Your task to perform on an android device: delete browsing data in the chrome app Image 0: 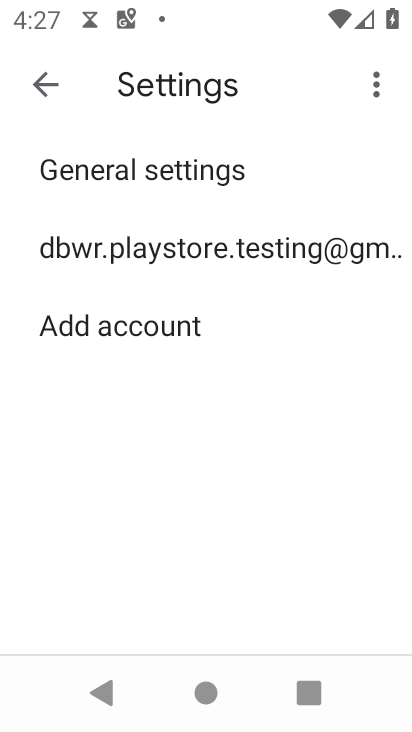
Step 0: press home button
Your task to perform on an android device: delete browsing data in the chrome app Image 1: 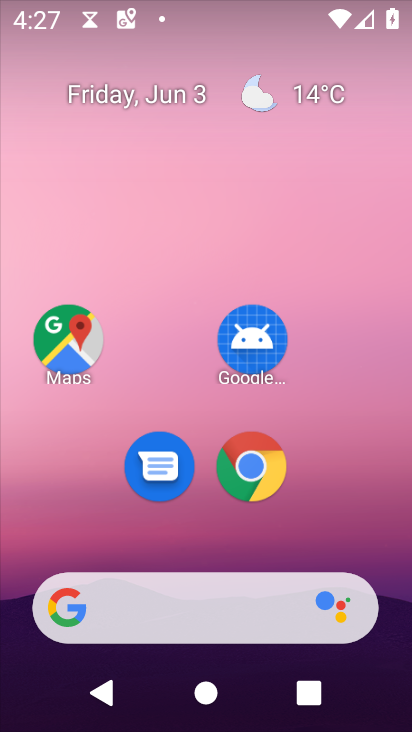
Step 1: click (257, 465)
Your task to perform on an android device: delete browsing data in the chrome app Image 2: 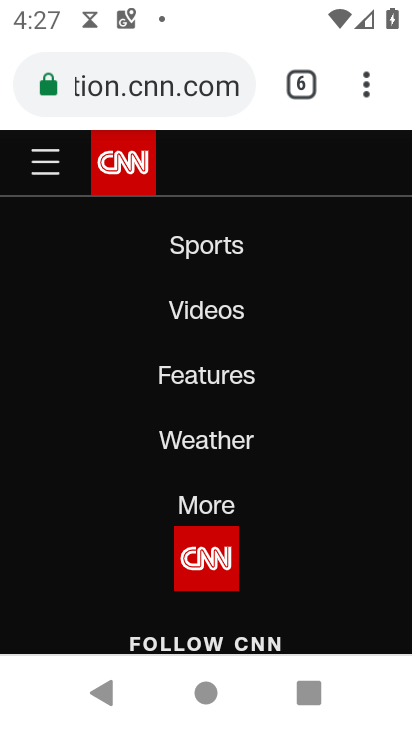
Step 2: click (368, 71)
Your task to perform on an android device: delete browsing data in the chrome app Image 3: 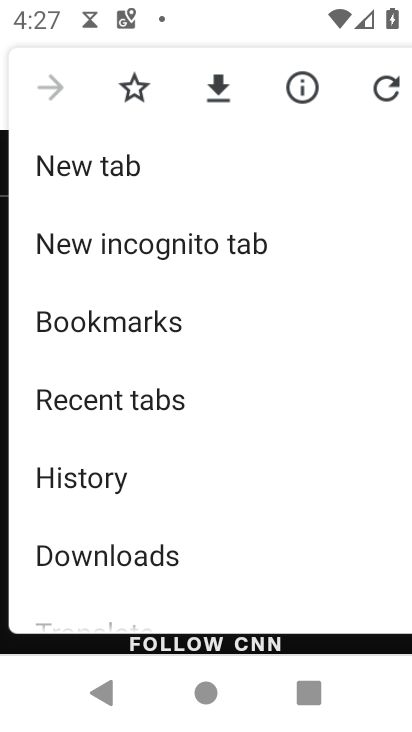
Step 3: drag from (296, 419) to (333, 278)
Your task to perform on an android device: delete browsing data in the chrome app Image 4: 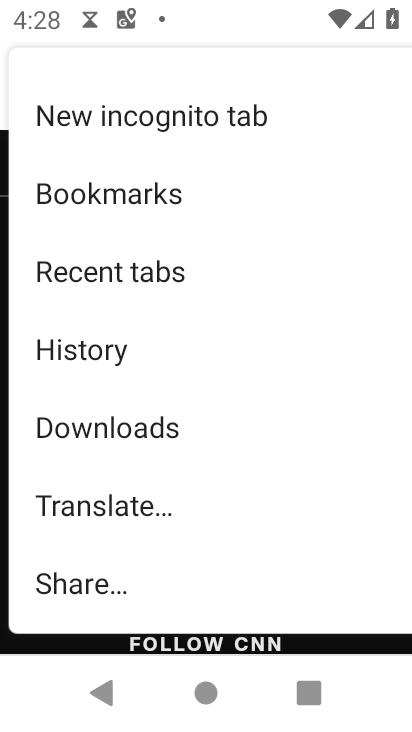
Step 4: drag from (258, 498) to (254, 319)
Your task to perform on an android device: delete browsing data in the chrome app Image 5: 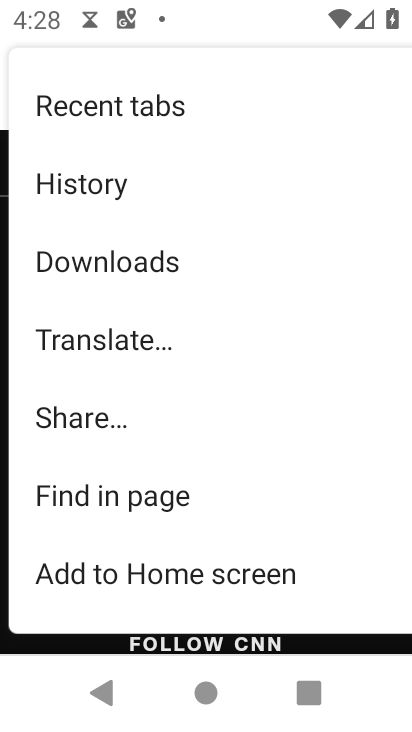
Step 5: drag from (316, 437) to (330, 252)
Your task to perform on an android device: delete browsing data in the chrome app Image 6: 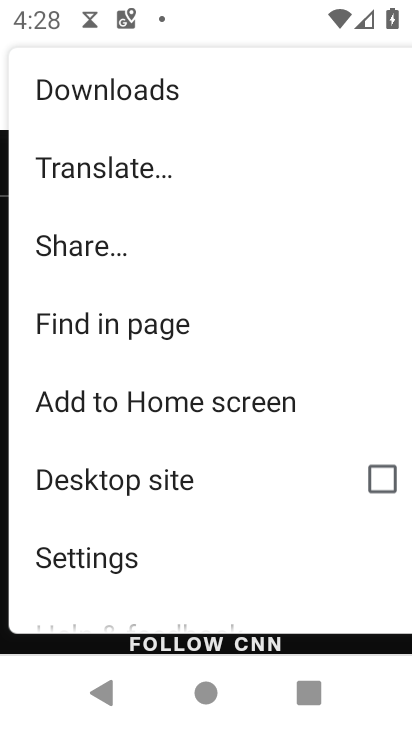
Step 6: click (157, 578)
Your task to perform on an android device: delete browsing data in the chrome app Image 7: 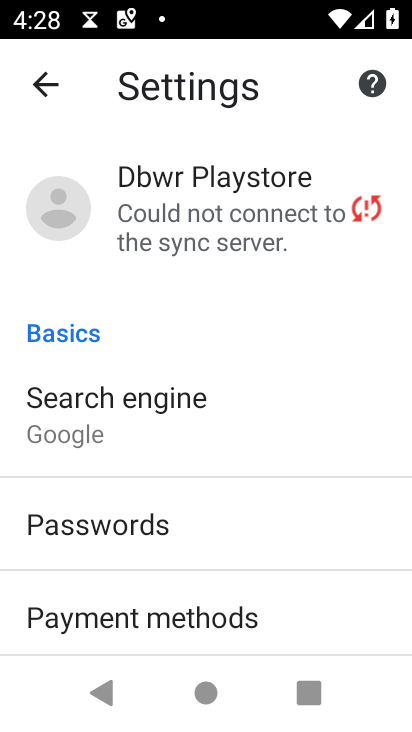
Step 7: click (306, 496)
Your task to perform on an android device: delete browsing data in the chrome app Image 8: 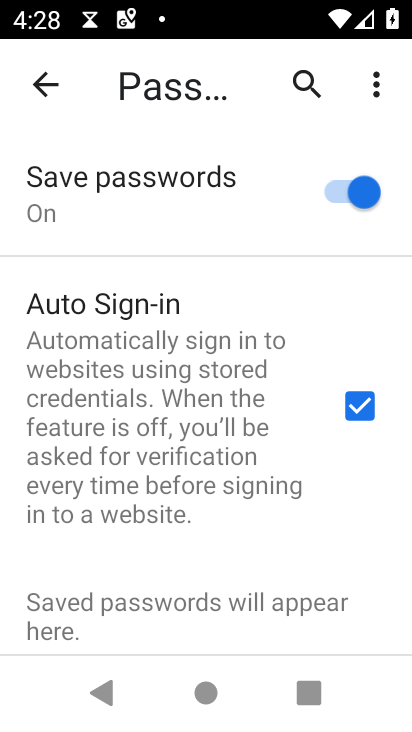
Step 8: press back button
Your task to perform on an android device: delete browsing data in the chrome app Image 9: 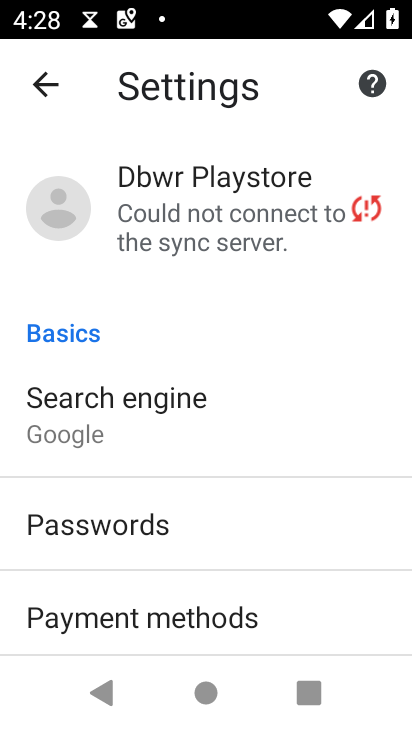
Step 9: drag from (337, 587) to (312, 352)
Your task to perform on an android device: delete browsing data in the chrome app Image 10: 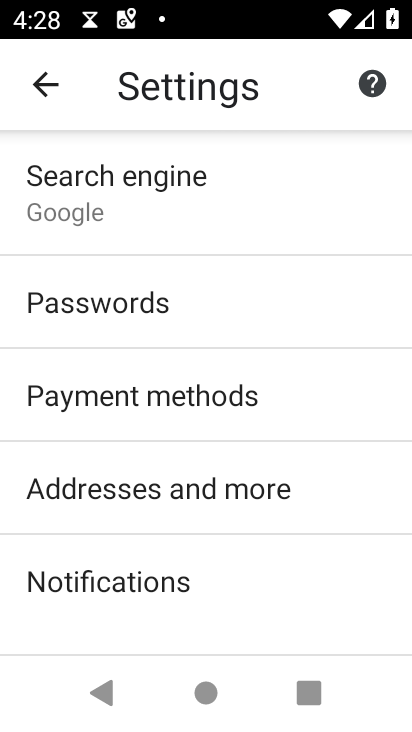
Step 10: drag from (227, 579) to (204, 334)
Your task to perform on an android device: delete browsing data in the chrome app Image 11: 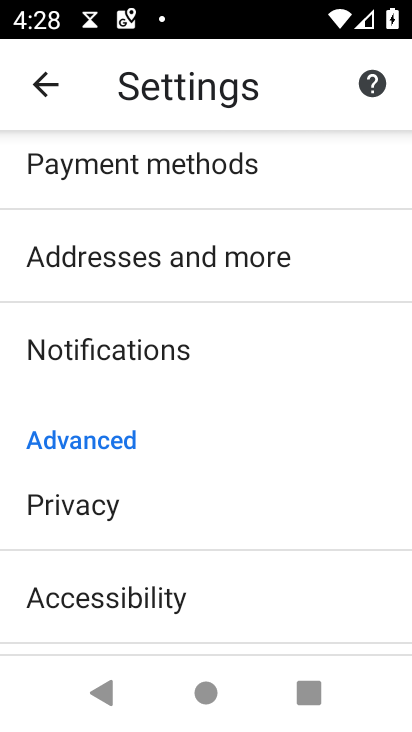
Step 11: click (218, 493)
Your task to perform on an android device: delete browsing data in the chrome app Image 12: 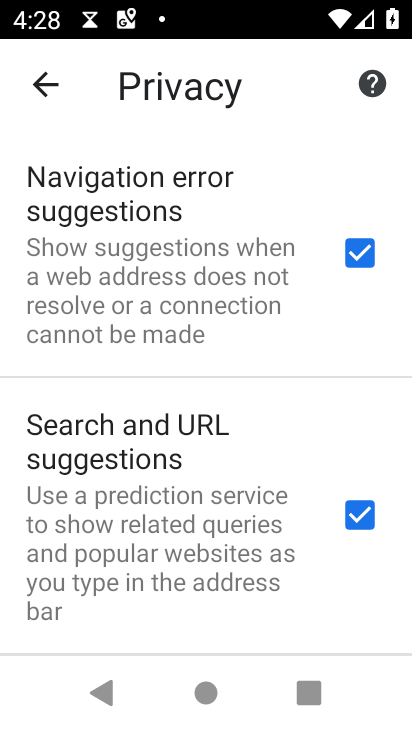
Step 12: drag from (316, 566) to (403, 108)
Your task to perform on an android device: delete browsing data in the chrome app Image 13: 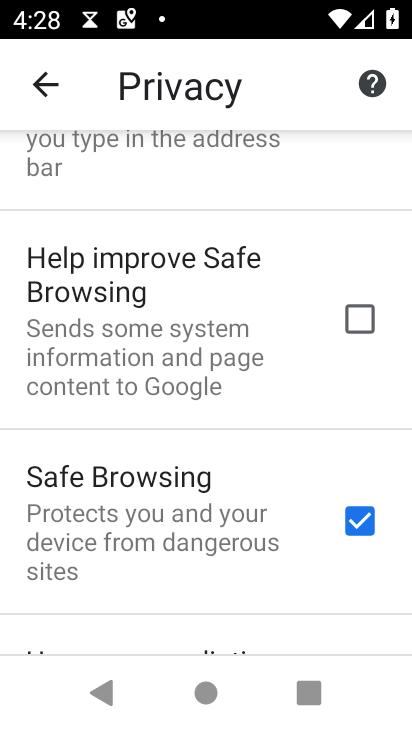
Step 13: drag from (127, 541) to (167, 48)
Your task to perform on an android device: delete browsing data in the chrome app Image 14: 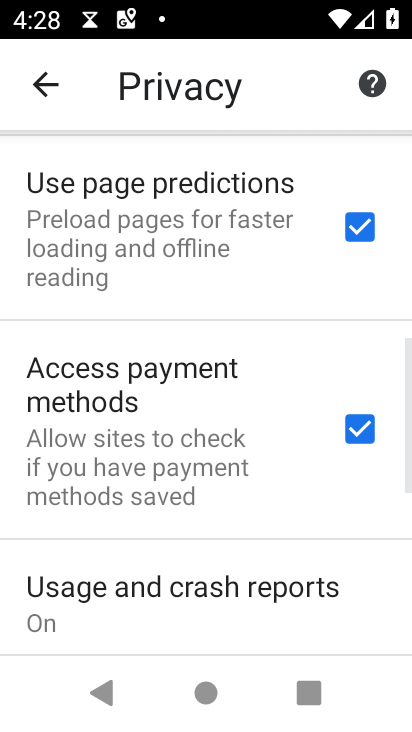
Step 14: drag from (10, 578) to (115, 156)
Your task to perform on an android device: delete browsing data in the chrome app Image 15: 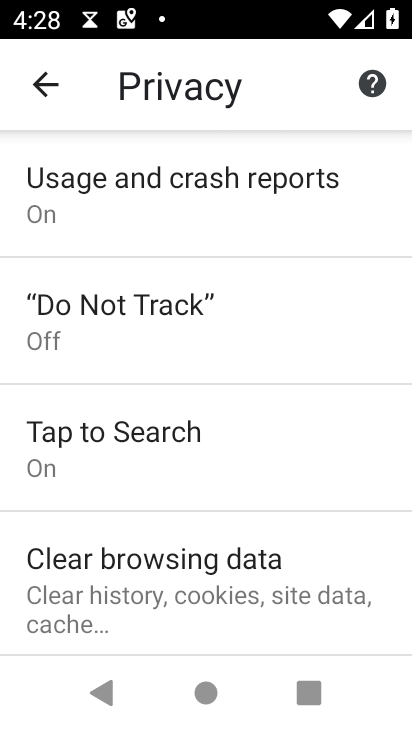
Step 15: drag from (158, 567) to (173, 288)
Your task to perform on an android device: delete browsing data in the chrome app Image 16: 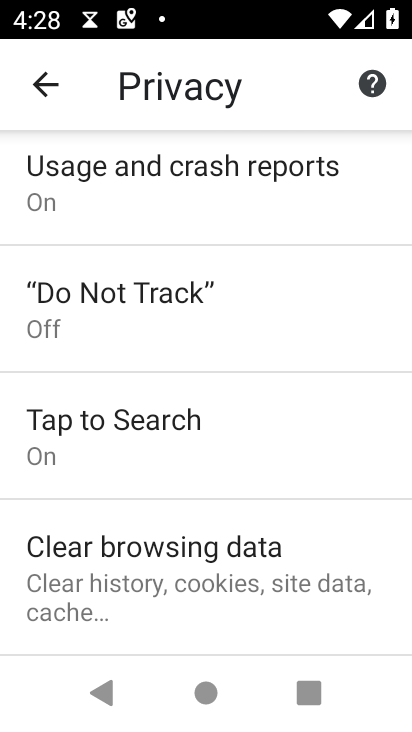
Step 16: click (168, 575)
Your task to perform on an android device: delete browsing data in the chrome app Image 17: 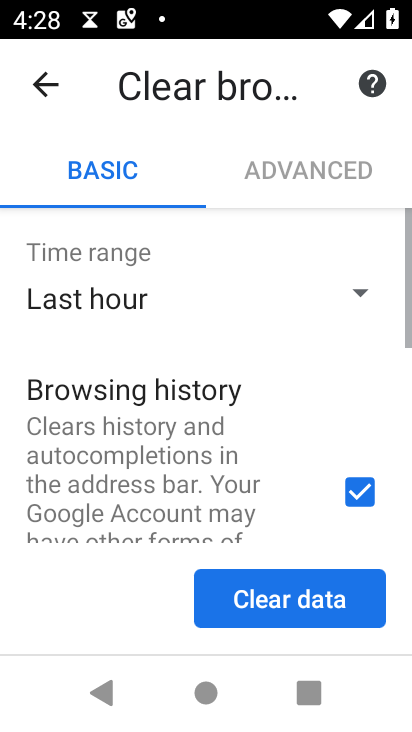
Step 17: drag from (322, 453) to (356, 114)
Your task to perform on an android device: delete browsing data in the chrome app Image 18: 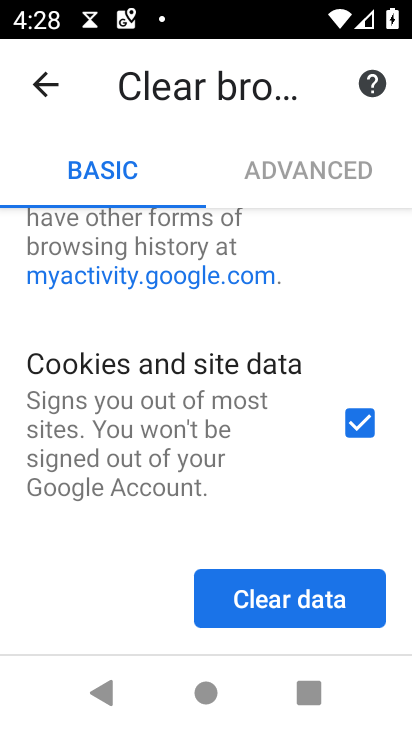
Step 18: click (332, 595)
Your task to perform on an android device: delete browsing data in the chrome app Image 19: 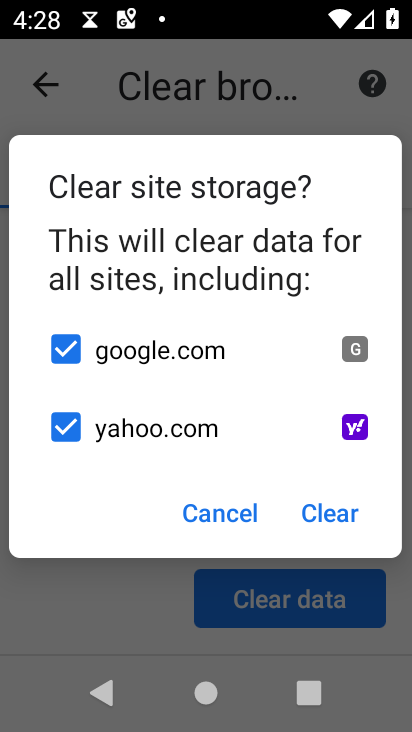
Step 19: click (334, 511)
Your task to perform on an android device: delete browsing data in the chrome app Image 20: 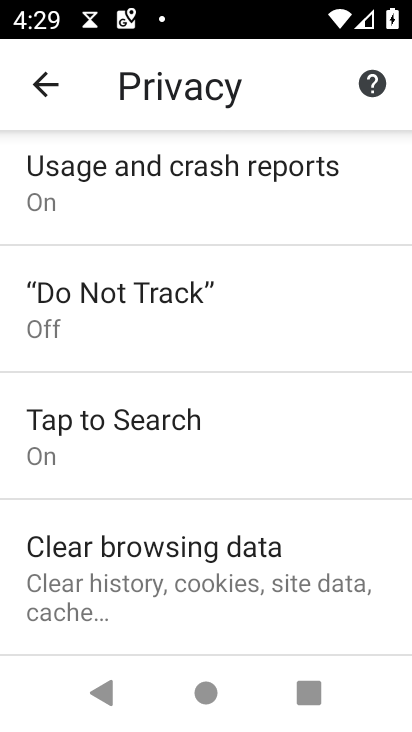
Step 20: task complete